Your task to perform on an android device: Open Youtube and go to "Your channel" Image 0: 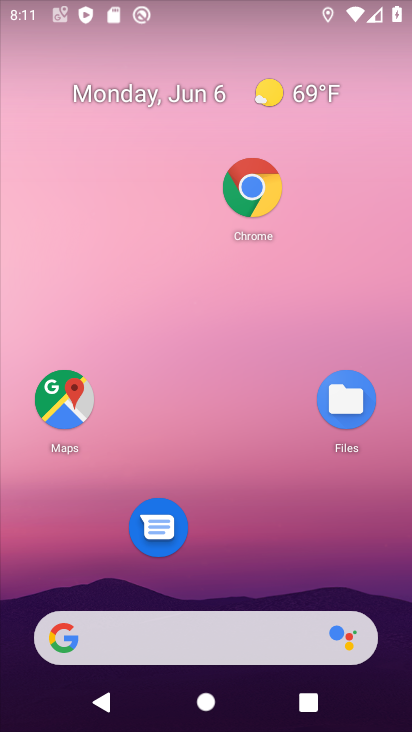
Step 0: drag from (200, 562) to (196, 107)
Your task to perform on an android device: Open Youtube and go to "Your channel" Image 1: 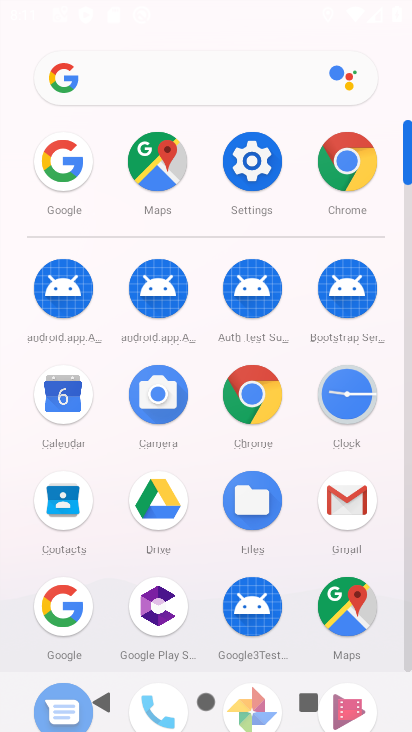
Step 1: drag from (198, 567) to (217, 171)
Your task to perform on an android device: Open Youtube and go to "Your channel" Image 2: 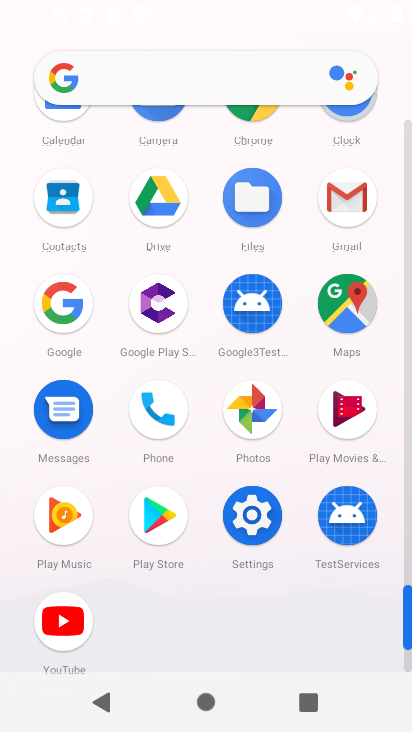
Step 2: click (34, 629)
Your task to perform on an android device: Open Youtube and go to "Your channel" Image 3: 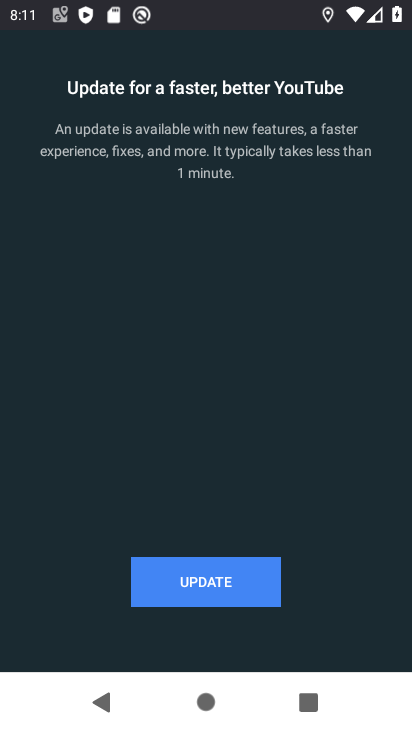
Step 3: click (219, 589)
Your task to perform on an android device: Open Youtube and go to "Your channel" Image 4: 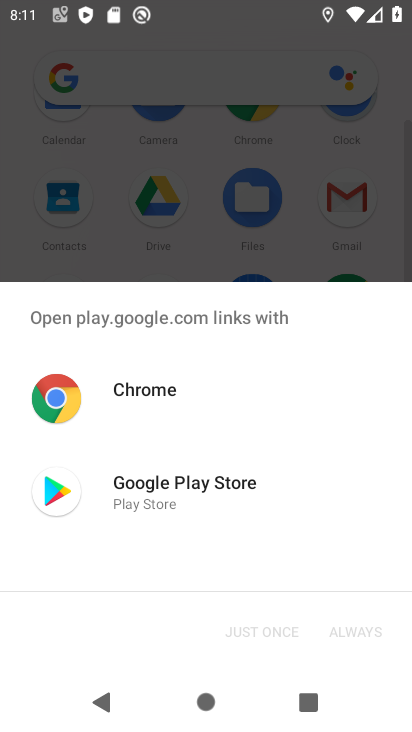
Step 4: click (162, 508)
Your task to perform on an android device: Open Youtube and go to "Your channel" Image 5: 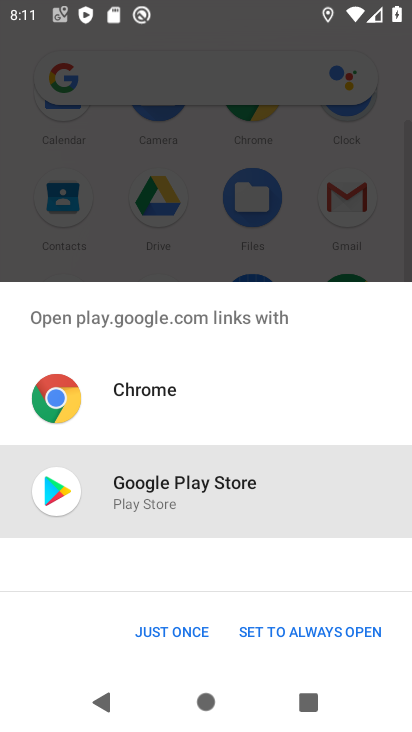
Step 5: click (176, 619)
Your task to perform on an android device: Open Youtube and go to "Your channel" Image 6: 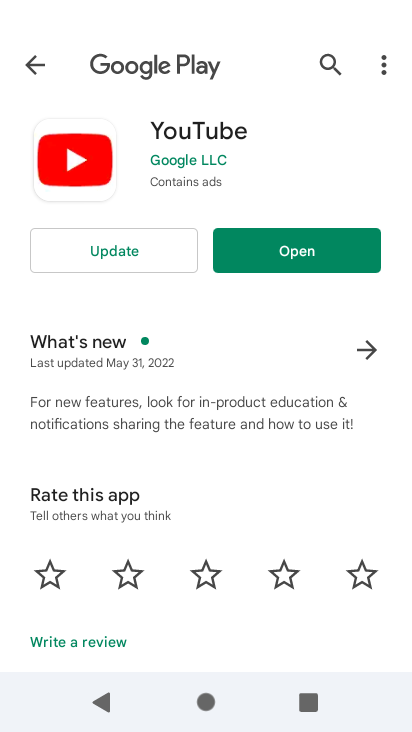
Step 6: click (85, 259)
Your task to perform on an android device: Open Youtube and go to "Your channel" Image 7: 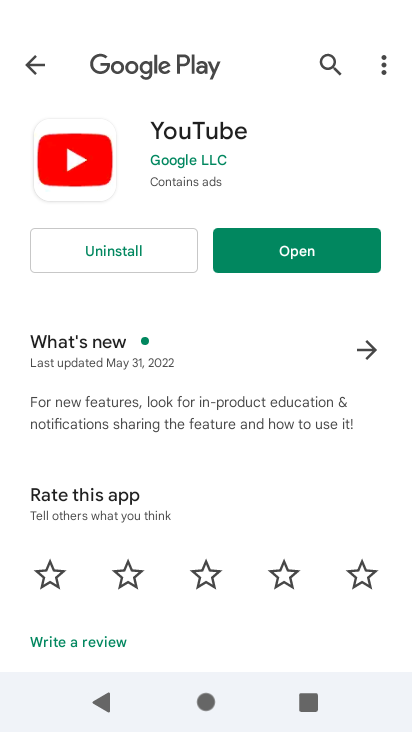
Step 7: click (287, 248)
Your task to perform on an android device: Open Youtube and go to "Your channel" Image 8: 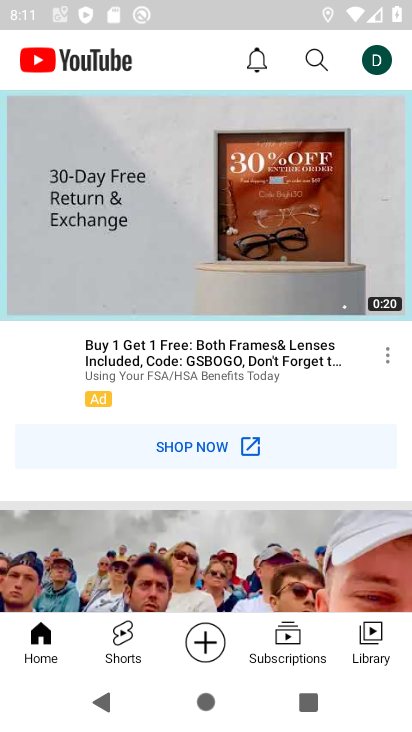
Step 8: click (376, 56)
Your task to perform on an android device: Open Youtube and go to "Your channel" Image 9: 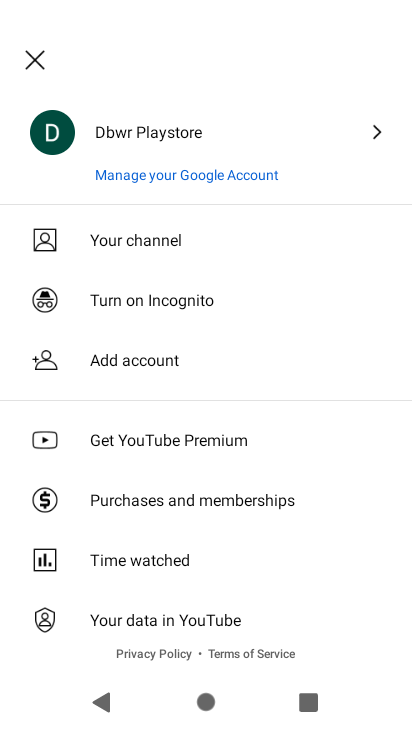
Step 9: click (181, 254)
Your task to perform on an android device: Open Youtube and go to "Your channel" Image 10: 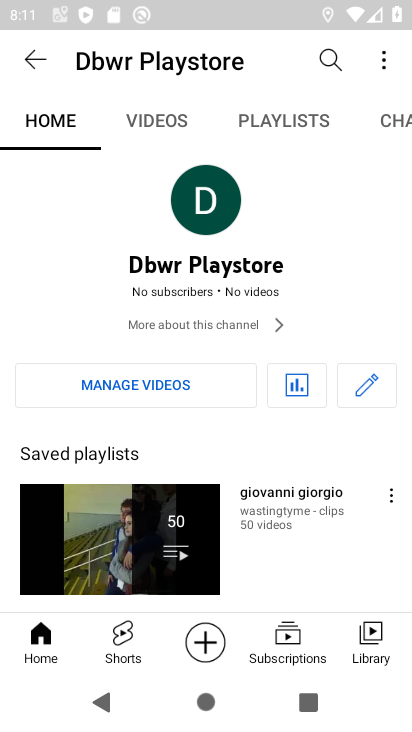
Step 10: task complete